Your task to perform on an android device: install app "Facebook" Image 0: 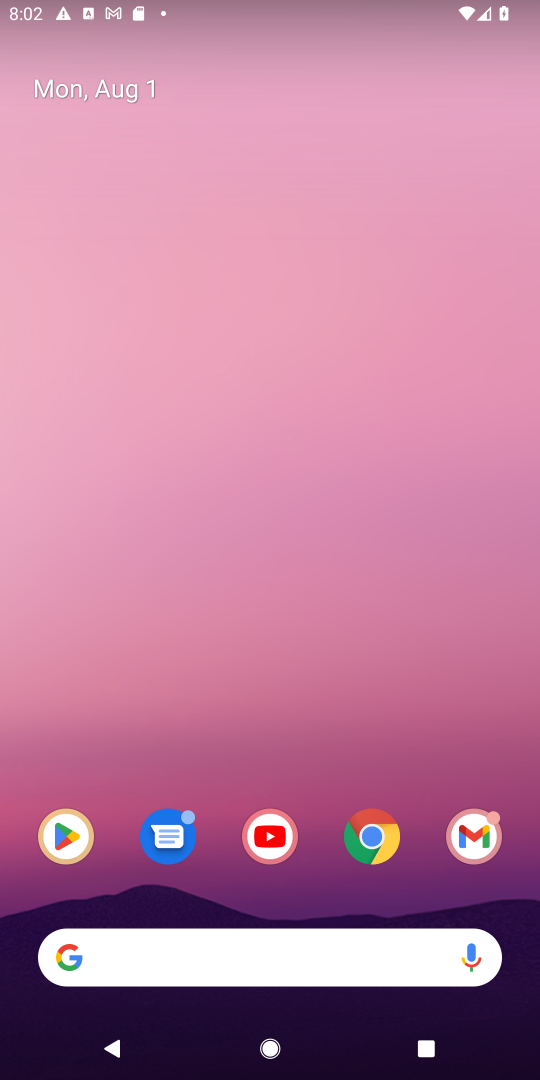
Step 0: click (71, 832)
Your task to perform on an android device: install app "Facebook" Image 1: 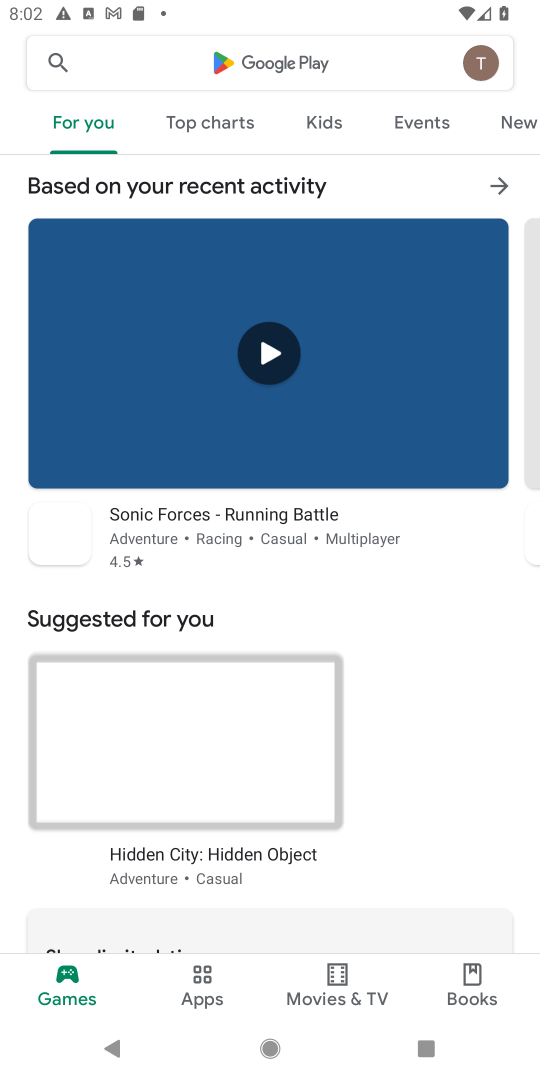
Step 1: click (314, 55)
Your task to perform on an android device: install app "Facebook" Image 2: 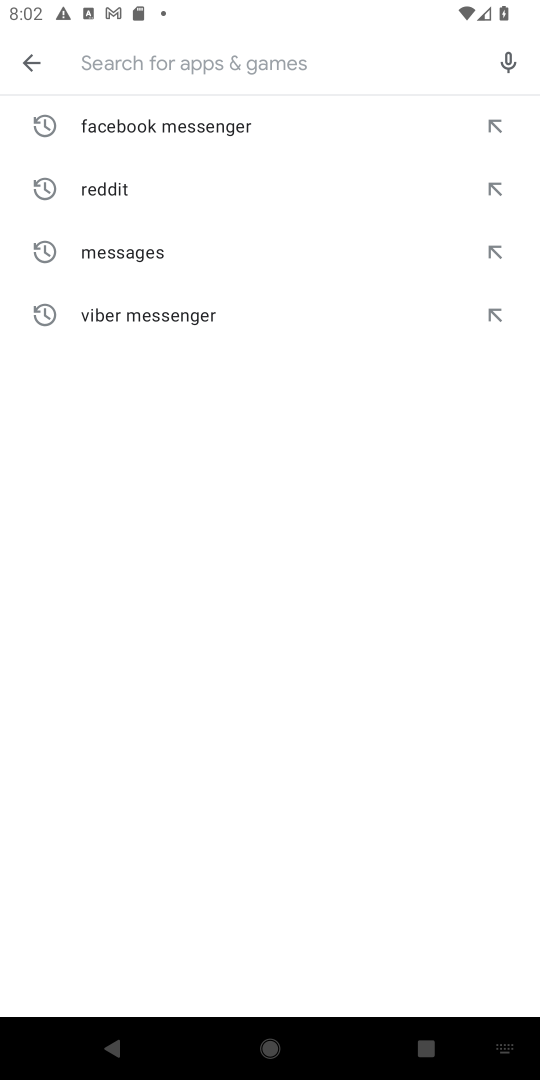
Step 2: type "Facebook"
Your task to perform on an android device: install app "Facebook" Image 3: 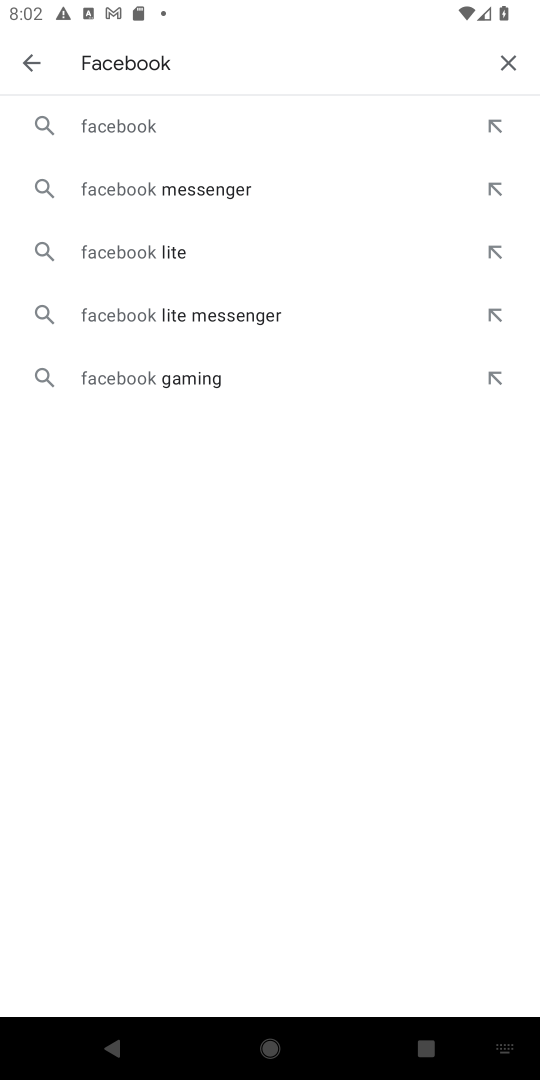
Step 3: click (171, 115)
Your task to perform on an android device: install app "Facebook" Image 4: 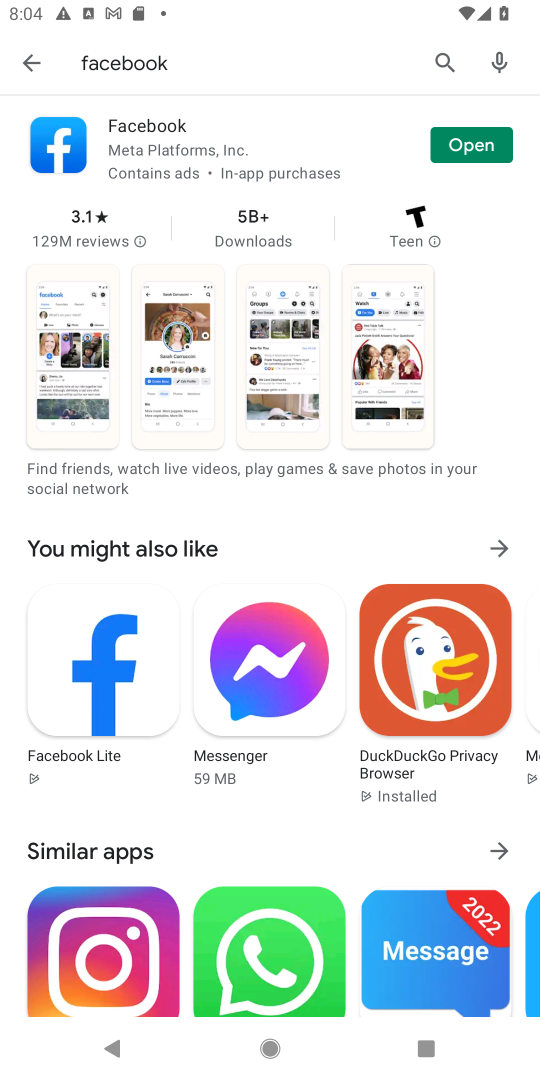
Step 4: task complete